Your task to perform on an android device: turn vacation reply on in the gmail app Image 0: 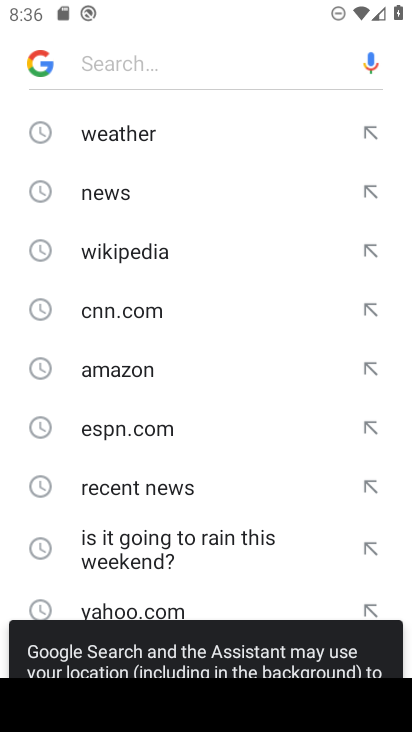
Step 0: press back button
Your task to perform on an android device: turn vacation reply on in the gmail app Image 1: 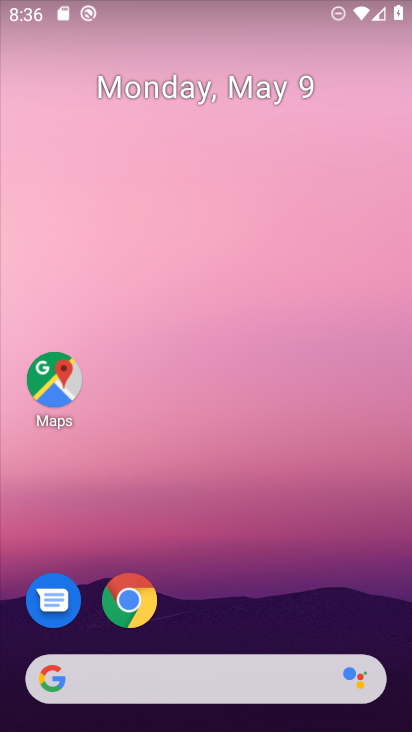
Step 1: drag from (285, 586) to (258, 15)
Your task to perform on an android device: turn vacation reply on in the gmail app Image 2: 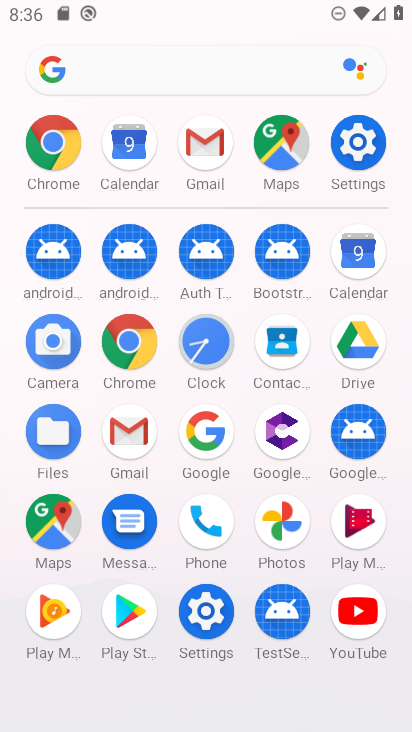
Step 2: click (128, 428)
Your task to perform on an android device: turn vacation reply on in the gmail app Image 3: 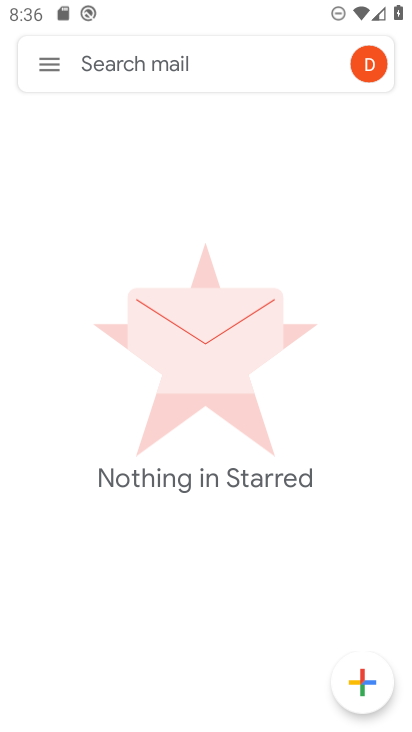
Step 3: click (38, 52)
Your task to perform on an android device: turn vacation reply on in the gmail app Image 4: 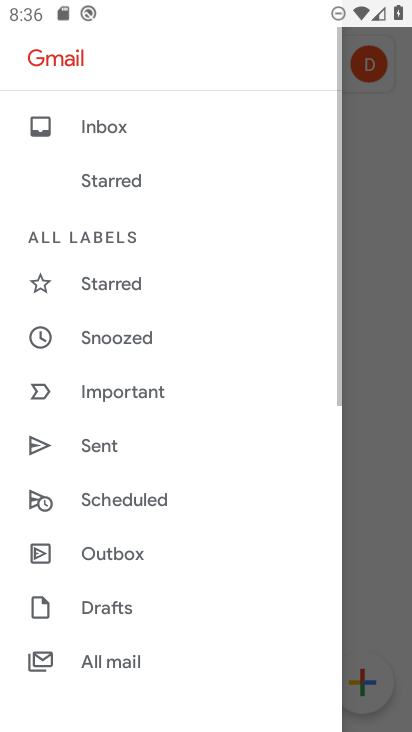
Step 4: drag from (199, 597) to (224, 205)
Your task to perform on an android device: turn vacation reply on in the gmail app Image 5: 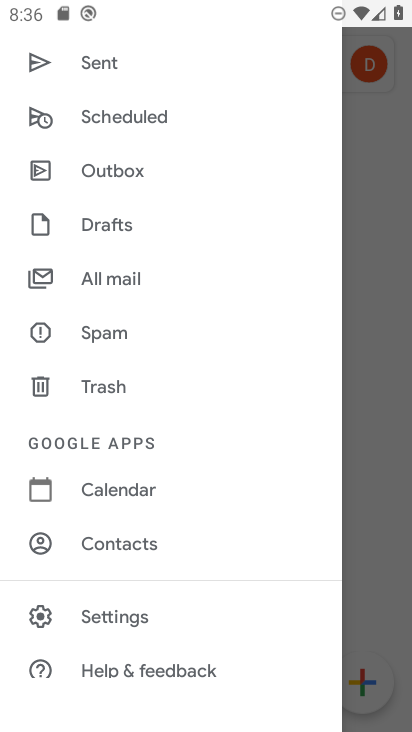
Step 5: click (125, 607)
Your task to perform on an android device: turn vacation reply on in the gmail app Image 6: 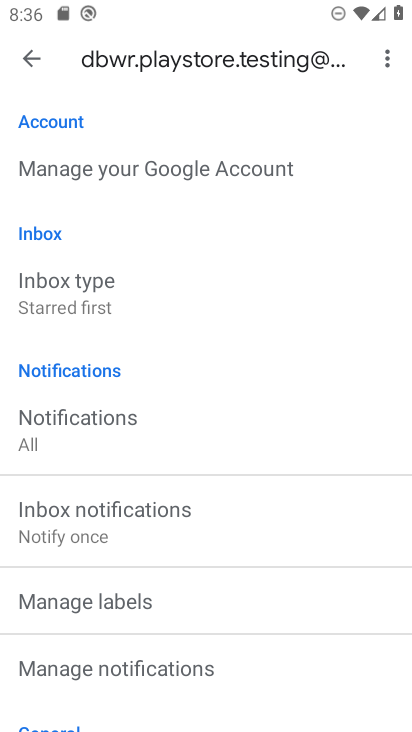
Step 6: drag from (243, 530) to (242, 156)
Your task to perform on an android device: turn vacation reply on in the gmail app Image 7: 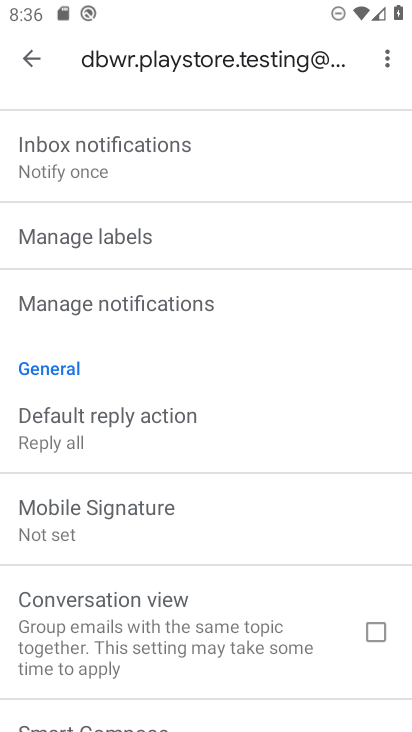
Step 7: drag from (242, 584) to (246, 161)
Your task to perform on an android device: turn vacation reply on in the gmail app Image 8: 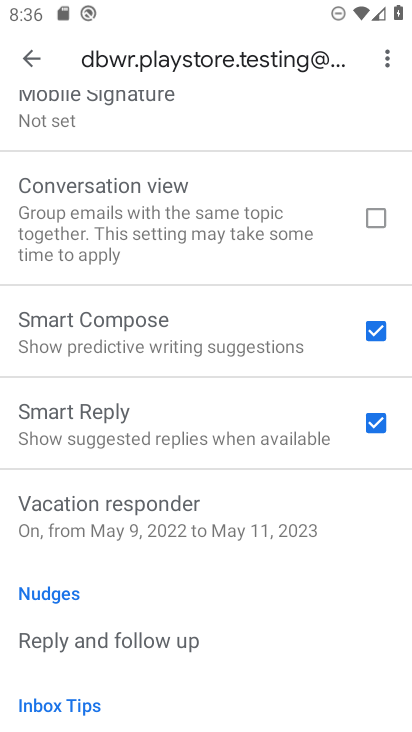
Step 8: drag from (187, 625) to (238, 173)
Your task to perform on an android device: turn vacation reply on in the gmail app Image 9: 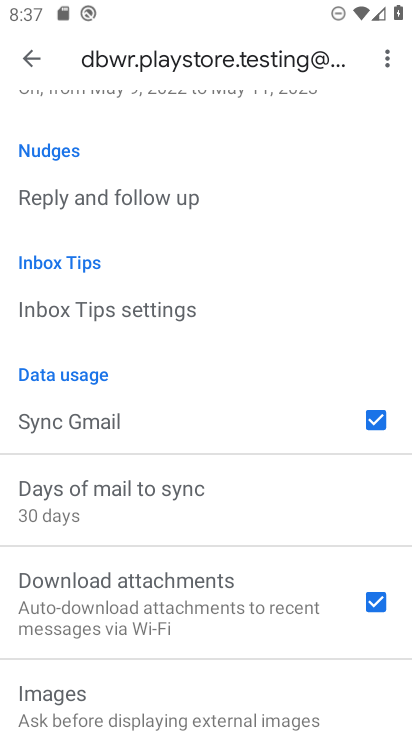
Step 9: drag from (234, 588) to (282, 169)
Your task to perform on an android device: turn vacation reply on in the gmail app Image 10: 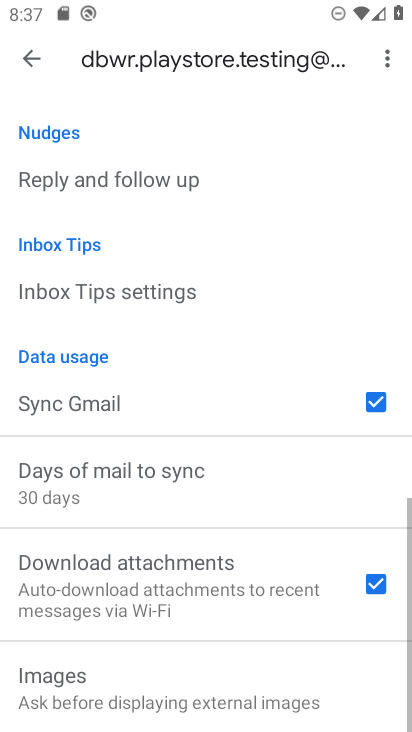
Step 10: drag from (257, 282) to (244, 641)
Your task to perform on an android device: turn vacation reply on in the gmail app Image 11: 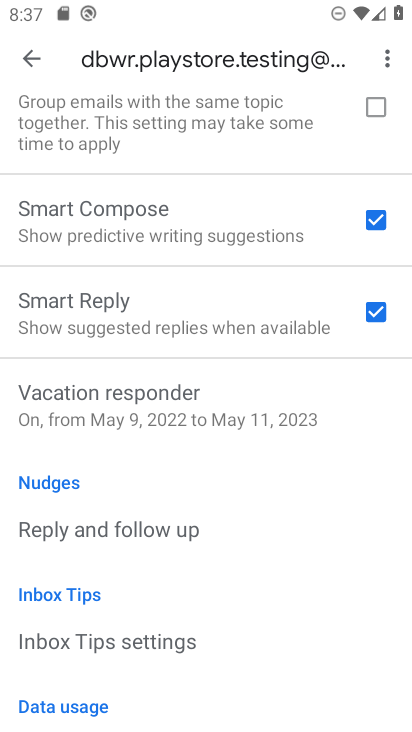
Step 11: drag from (212, 266) to (212, 553)
Your task to perform on an android device: turn vacation reply on in the gmail app Image 12: 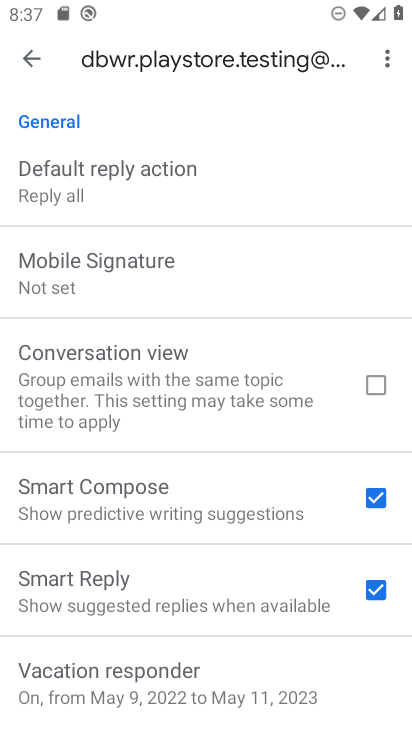
Step 12: click (190, 687)
Your task to perform on an android device: turn vacation reply on in the gmail app Image 13: 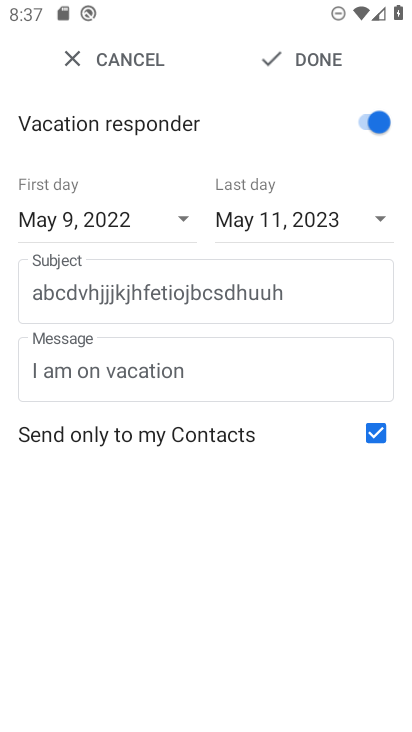
Step 13: click (305, 48)
Your task to perform on an android device: turn vacation reply on in the gmail app Image 14: 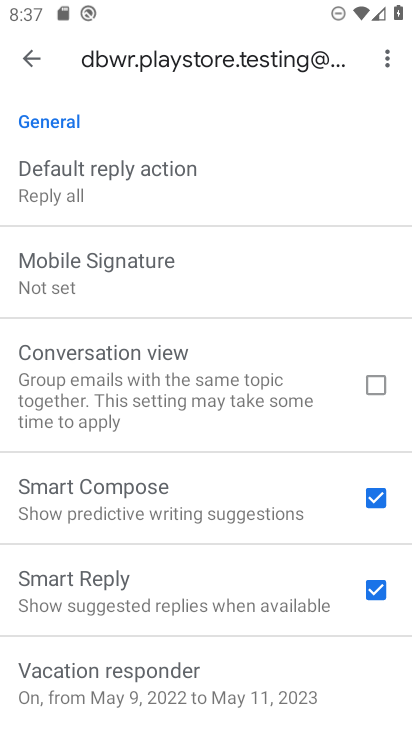
Step 14: task complete